Your task to perform on an android device: set the stopwatch Image 0: 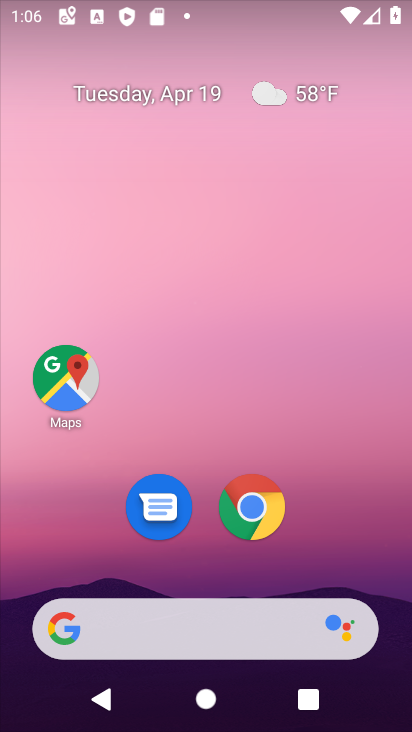
Step 0: drag from (216, 568) to (164, 128)
Your task to perform on an android device: set the stopwatch Image 1: 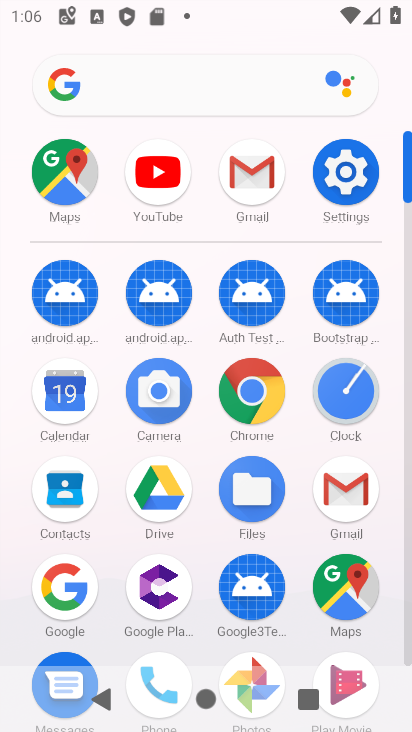
Step 1: click (352, 387)
Your task to perform on an android device: set the stopwatch Image 2: 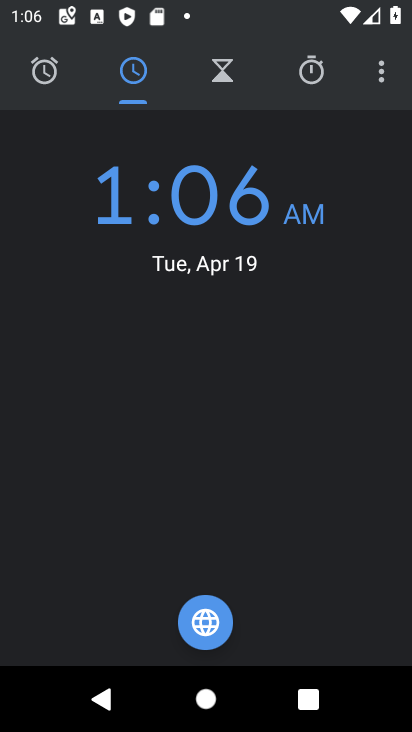
Step 2: click (295, 72)
Your task to perform on an android device: set the stopwatch Image 3: 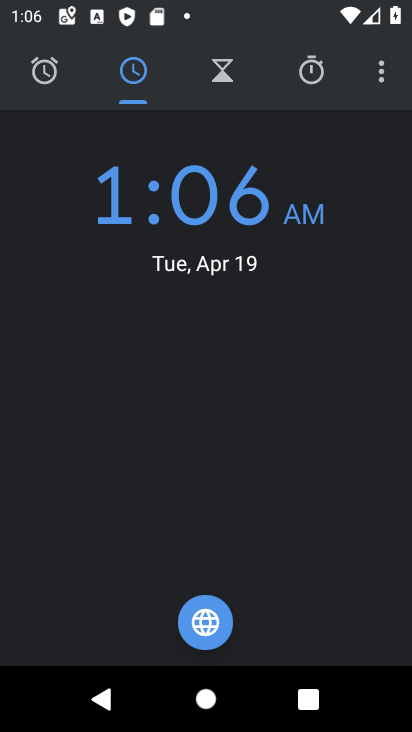
Step 3: click (300, 77)
Your task to perform on an android device: set the stopwatch Image 4: 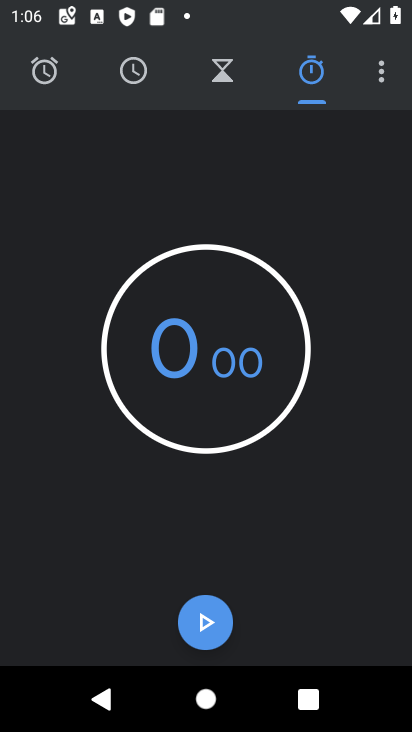
Step 4: click (197, 637)
Your task to perform on an android device: set the stopwatch Image 5: 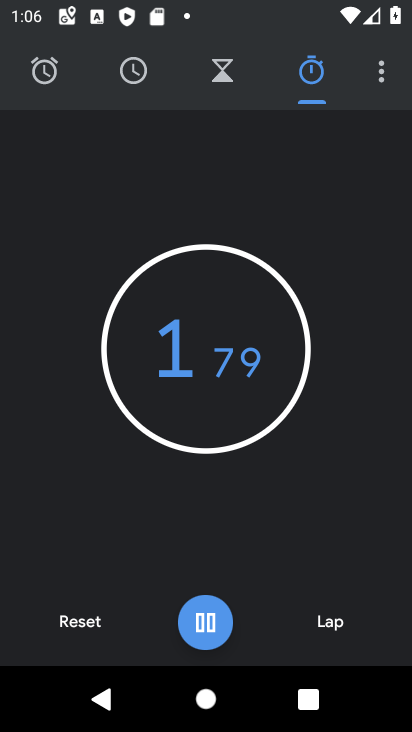
Step 5: task complete